Your task to perform on an android device: toggle javascript in the chrome app Image 0: 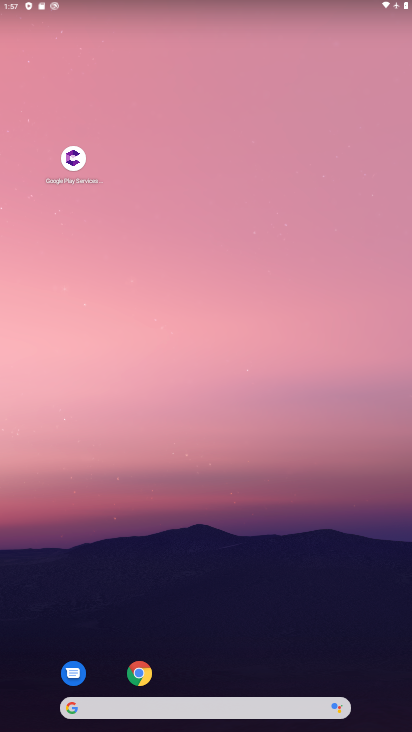
Step 0: drag from (290, 620) to (290, 142)
Your task to perform on an android device: toggle javascript in the chrome app Image 1: 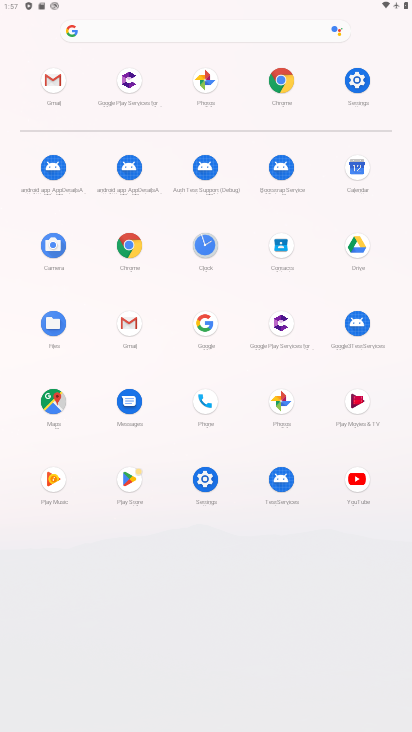
Step 1: click (272, 75)
Your task to perform on an android device: toggle javascript in the chrome app Image 2: 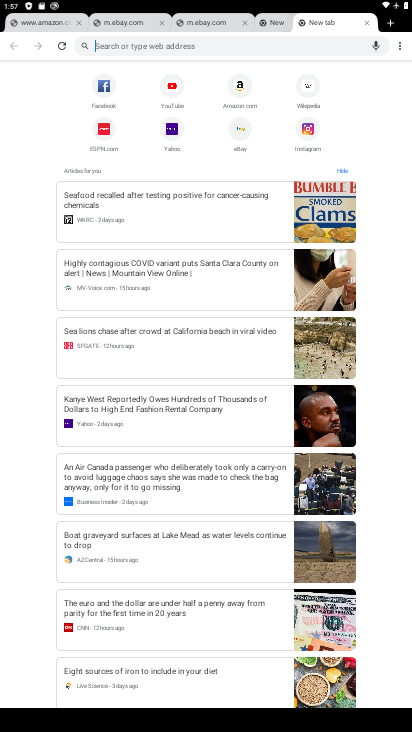
Step 2: click (402, 46)
Your task to perform on an android device: toggle javascript in the chrome app Image 3: 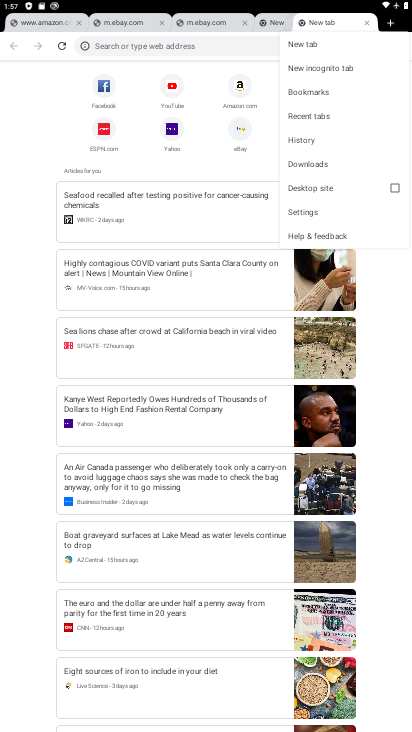
Step 3: click (323, 200)
Your task to perform on an android device: toggle javascript in the chrome app Image 4: 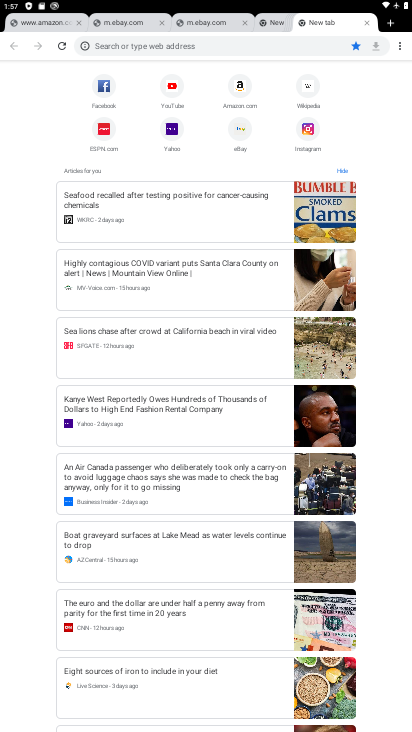
Step 4: click (398, 46)
Your task to perform on an android device: toggle javascript in the chrome app Image 5: 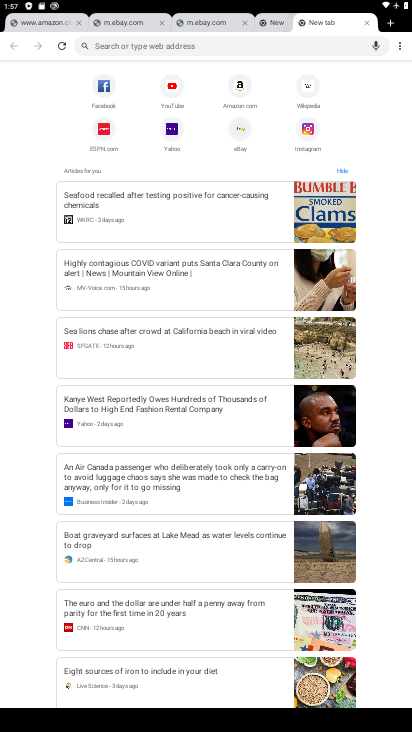
Step 5: click (396, 49)
Your task to perform on an android device: toggle javascript in the chrome app Image 6: 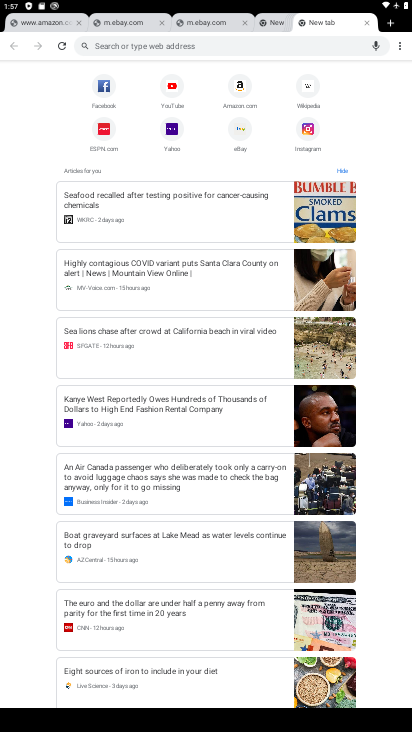
Step 6: click (391, 47)
Your task to perform on an android device: toggle javascript in the chrome app Image 7: 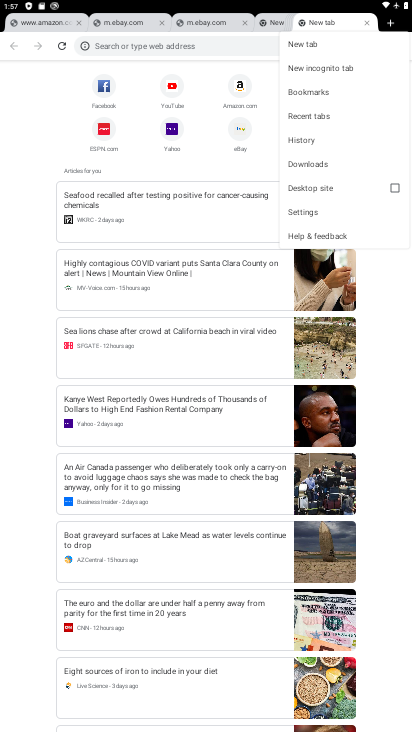
Step 7: click (292, 217)
Your task to perform on an android device: toggle javascript in the chrome app Image 8: 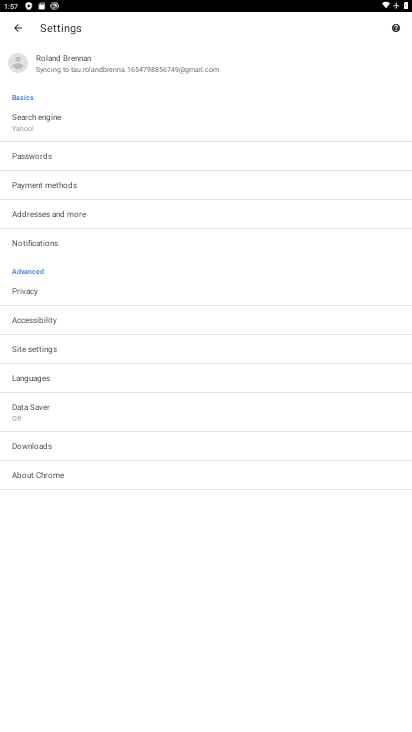
Step 8: click (51, 354)
Your task to perform on an android device: toggle javascript in the chrome app Image 9: 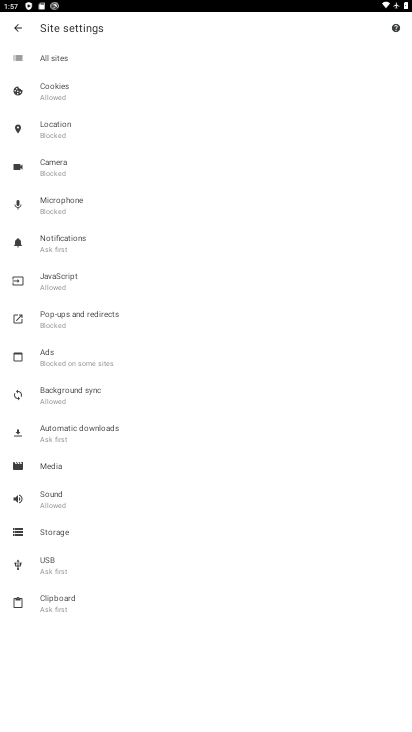
Step 9: click (75, 279)
Your task to perform on an android device: toggle javascript in the chrome app Image 10: 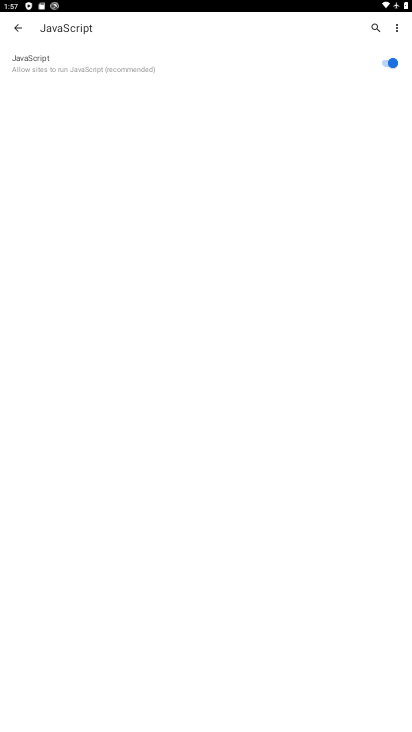
Step 10: click (387, 66)
Your task to perform on an android device: toggle javascript in the chrome app Image 11: 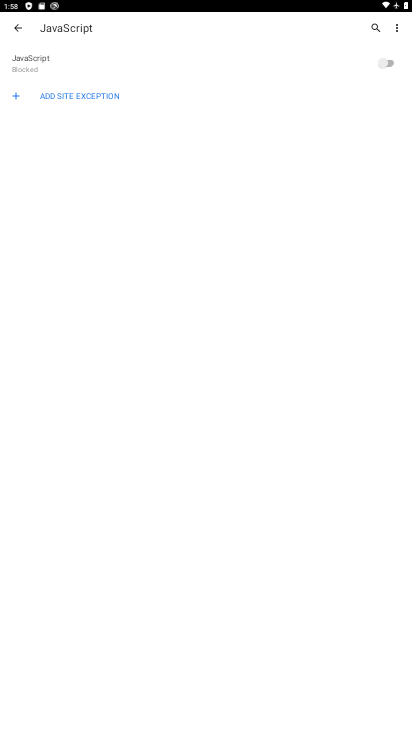
Step 11: task complete